Your task to perform on an android device: turn off javascript in the chrome app Image 0: 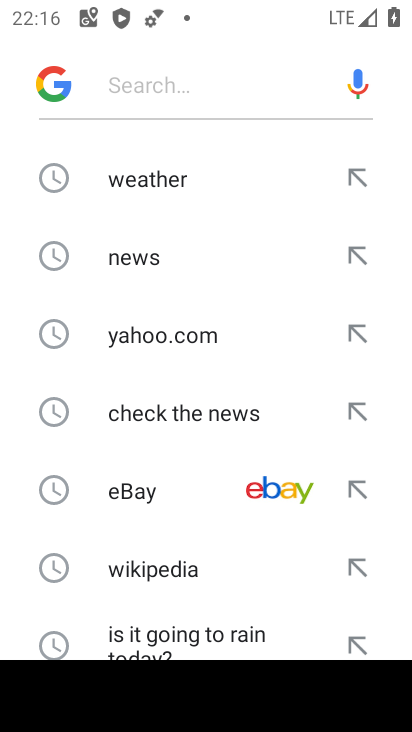
Step 0: press home button
Your task to perform on an android device: turn off javascript in the chrome app Image 1: 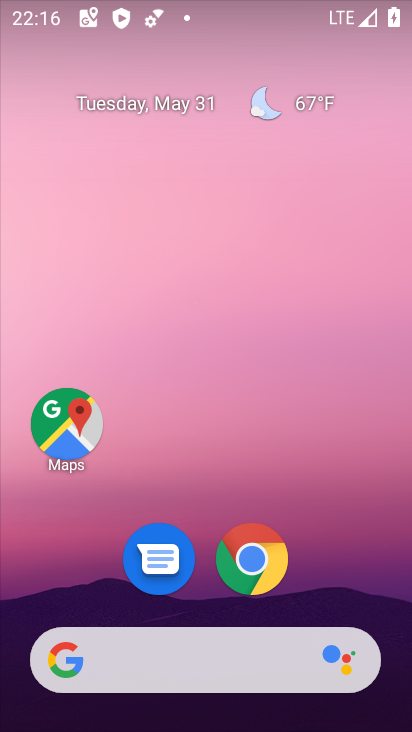
Step 1: click (254, 557)
Your task to perform on an android device: turn off javascript in the chrome app Image 2: 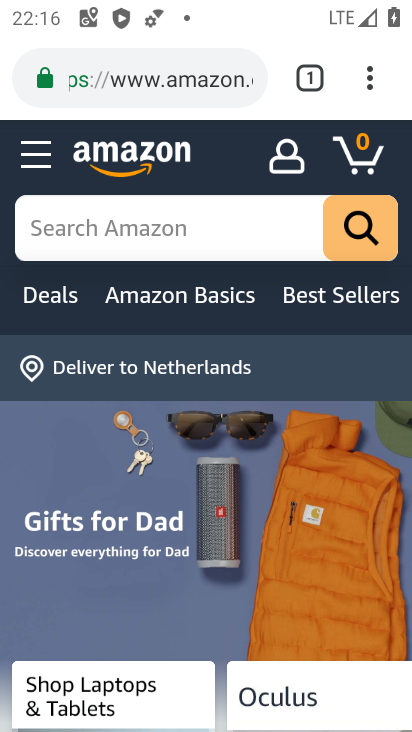
Step 2: click (364, 78)
Your task to perform on an android device: turn off javascript in the chrome app Image 3: 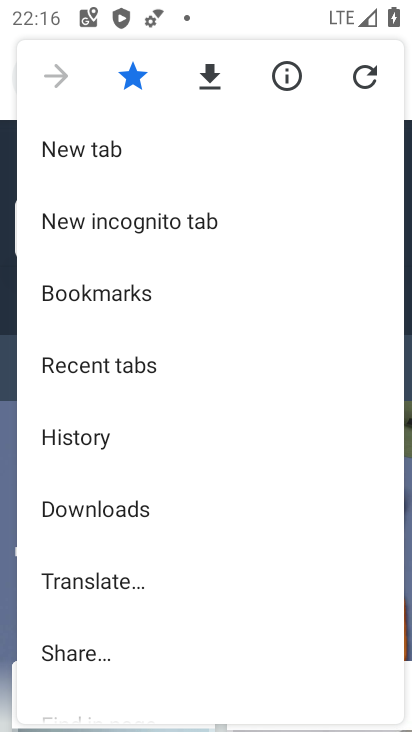
Step 3: drag from (186, 618) to (193, 176)
Your task to perform on an android device: turn off javascript in the chrome app Image 4: 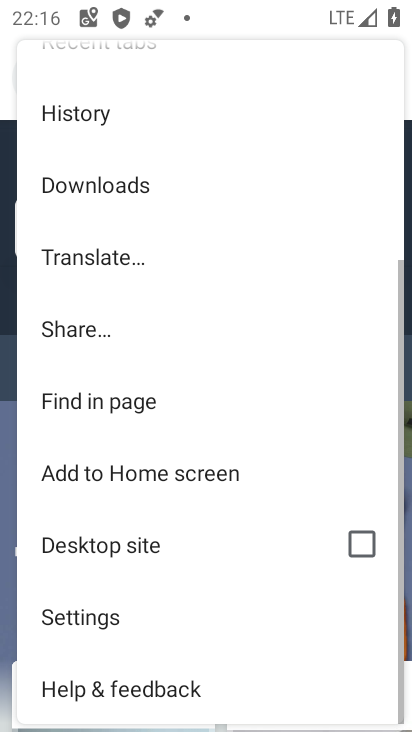
Step 4: click (117, 626)
Your task to perform on an android device: turn off javascript in the chrome app Image 5: 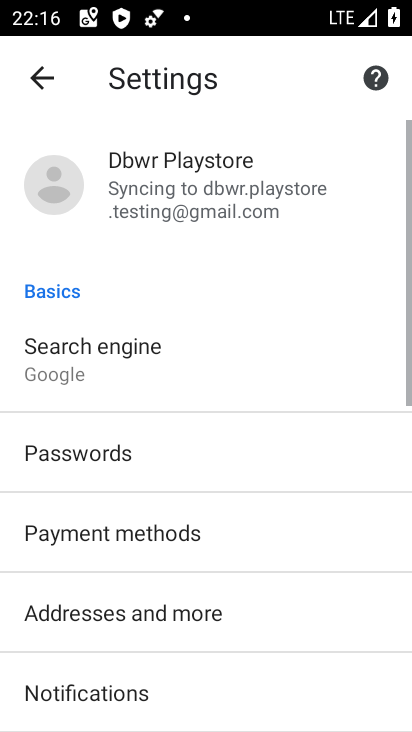
Step 5: drag from (324, 645) to (310, 135)
Your task to perform on an android device: turn off javascript in the chrome app Image 6: 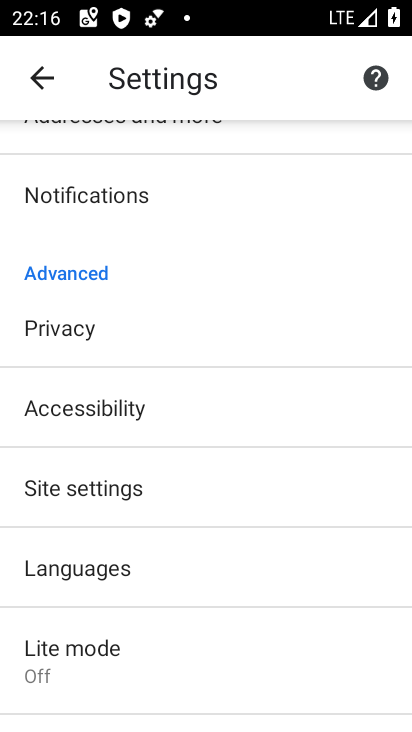
Step 6: click (66, 510)
Your task to perform on an android device: turn off javascript in the chrome app Image 7: 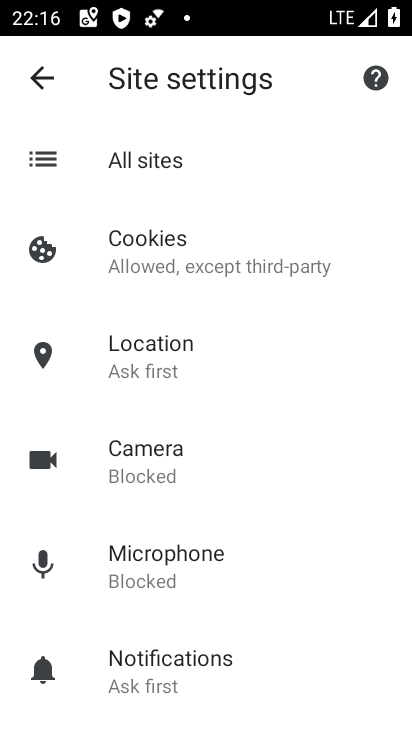
Step 7: drag from (219, 661) to (223, 283)
Your task to perform on an android device: turn off javascript in the chrome app Image 8: 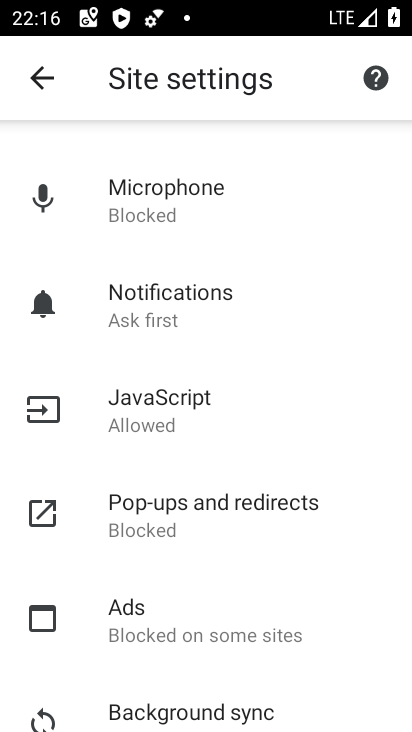
Step 8: click (83, 418)
Your task to perform on an android device: turn off javascript in the chrome app Image 9: 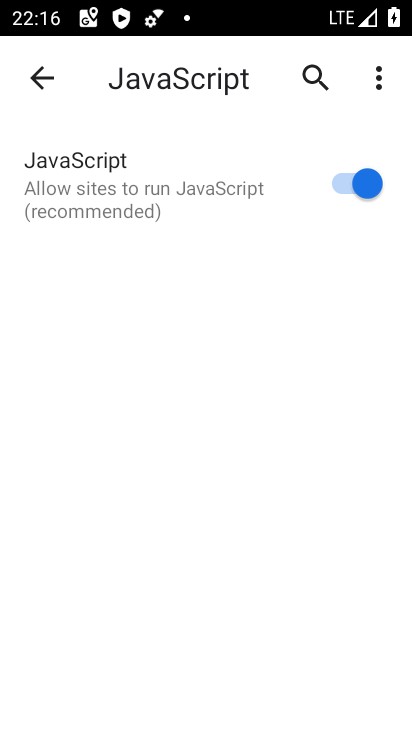
Step 9: click (361, 181)
Your task to perform on an android device: turn off javascript in the chrome app Image 10: 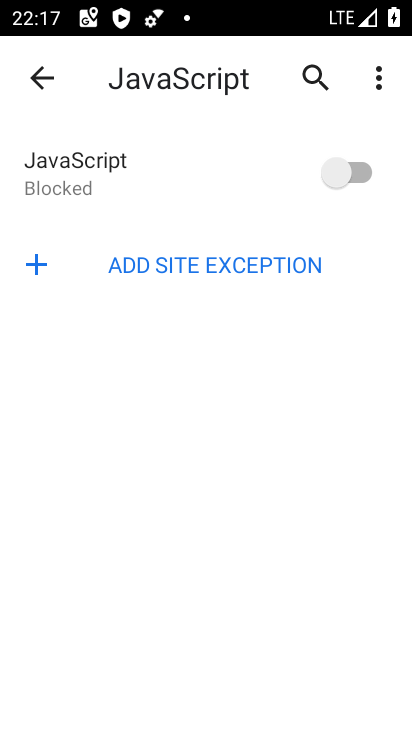
Step 10: task complete